Your task to perform on an android device: move a message to another label in the gmail app Image 0: 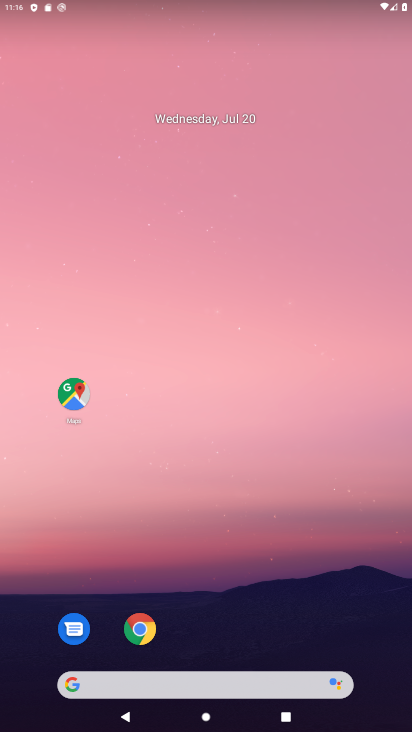
Step 0: drag from (266, 713) to (243, 0)
Your task to perform on an android device: move a message to another label in the gmail app Image 1: 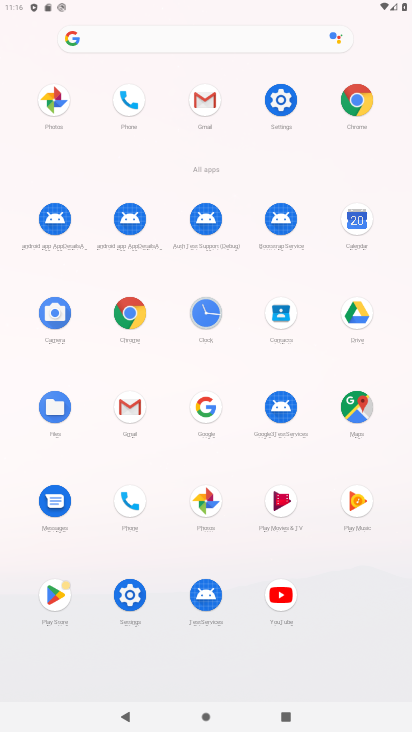
Step 1: click (122, 400)
Your task to perform on an android device: move a message to another label in the gmail app Image 2: 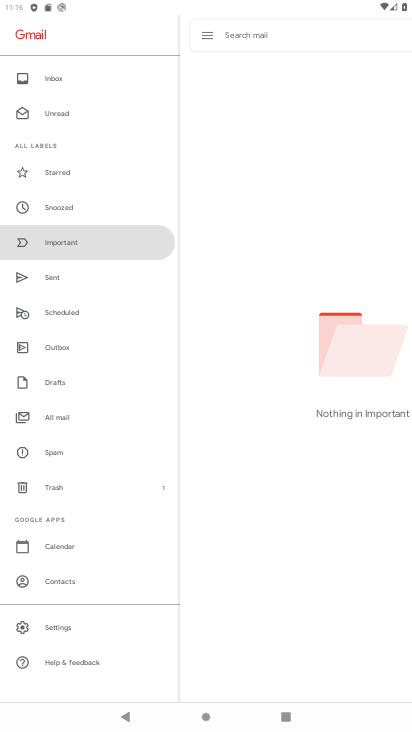
Step 2: click (60, 85)
Your task to perform on an android device: move a message to another label in the gmail app Image 3: 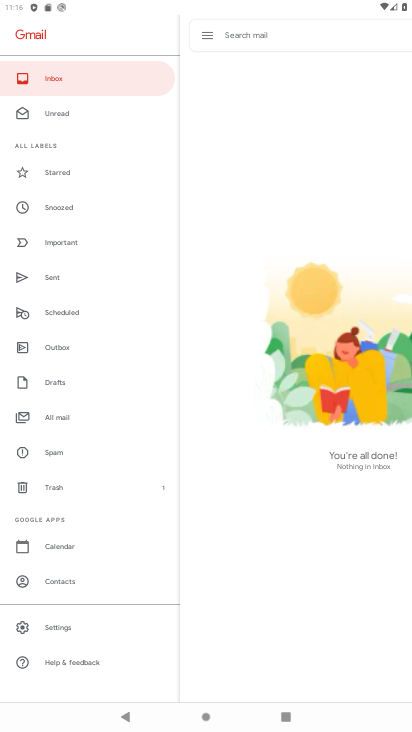
Step 3: task complete